Your task to perform on an android device: Go to CNN.com Image 0: 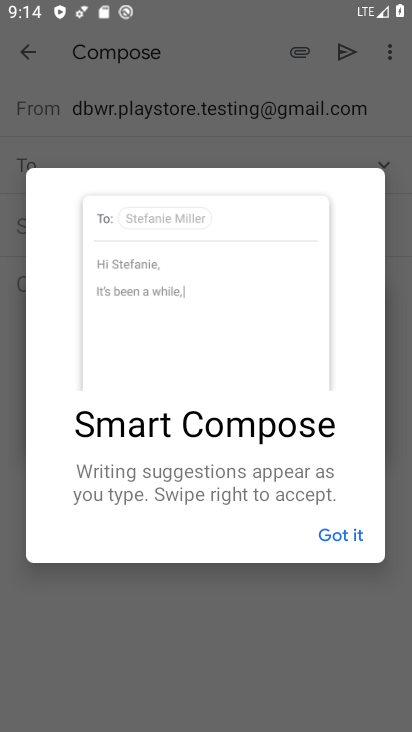
Step 0: press home button
Your task to perform on an android device: Go to CNN.com Image 1: 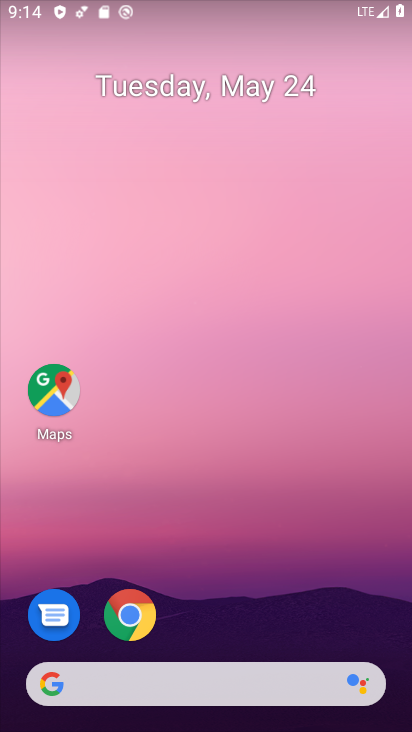
Step 1: click (135, 614)
Your task to perform on an android device: Go to CNN.com Image 2: 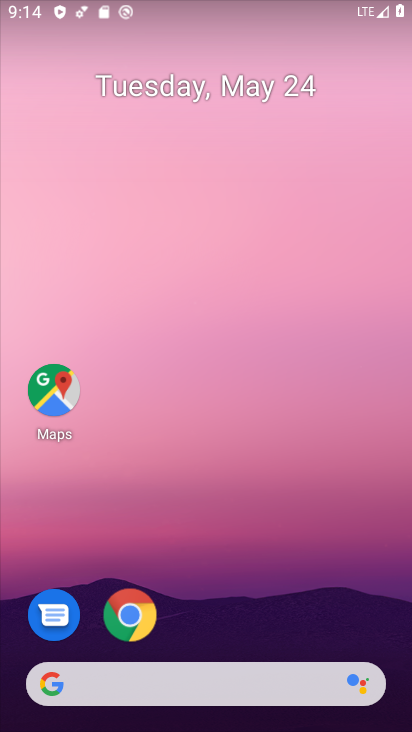
Step 2: click (110, 598)
Your task to perform on an android device: Go to CNN.com Image 3: 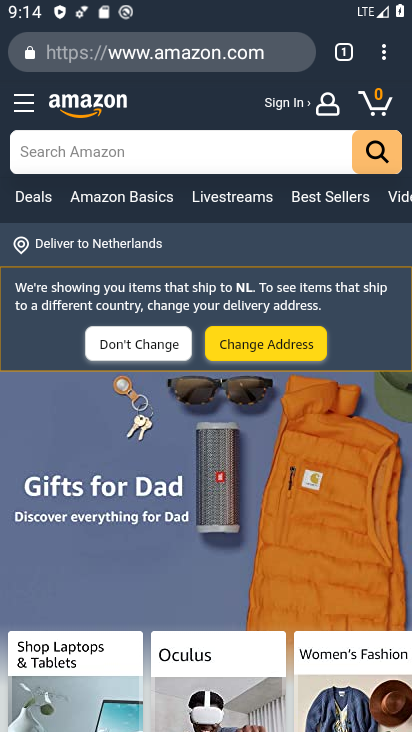
Step 3: click (155, 48)
Your task to perform on an android device: Go to CNN.com Image 4: 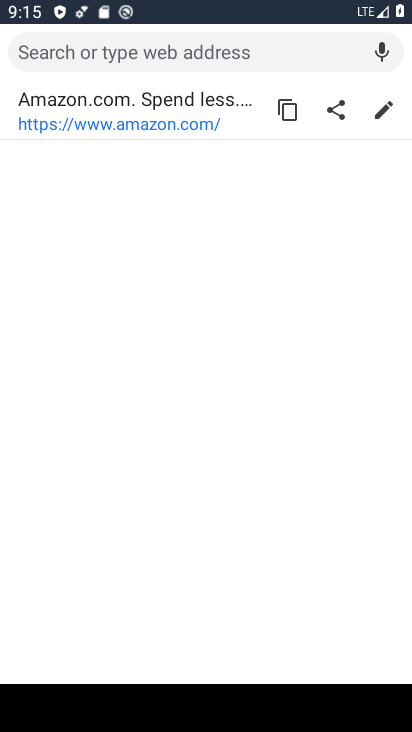
Step 4: type "Cnn.com"
Your task to perform on an android device: Go to CNN.com Image 5: 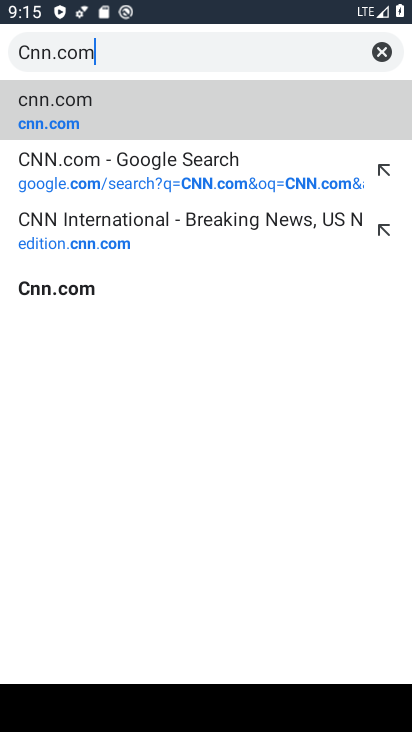
Step 5: click (40, 100)
Your task to perform on an android device: Go to CNN.com Image 6: 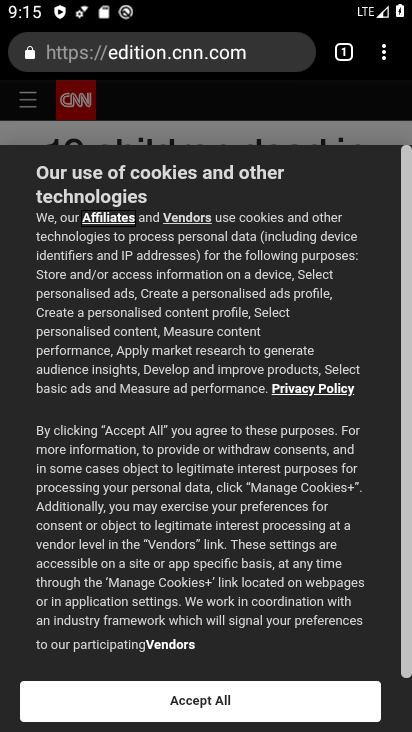
Step 6: task complete